Your task to perform on an android device: change notification settings in the gmail app Image 0: 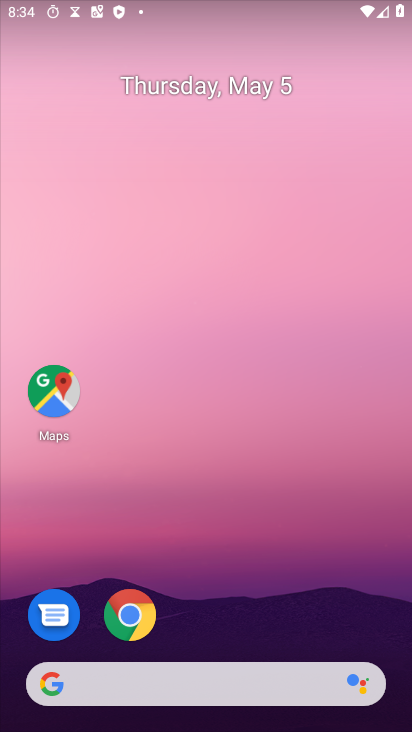
Step 0: drag from (206, 621) to (242, 173)
Your task to perform on an android device: change notification settings in the gmail app Image 1: 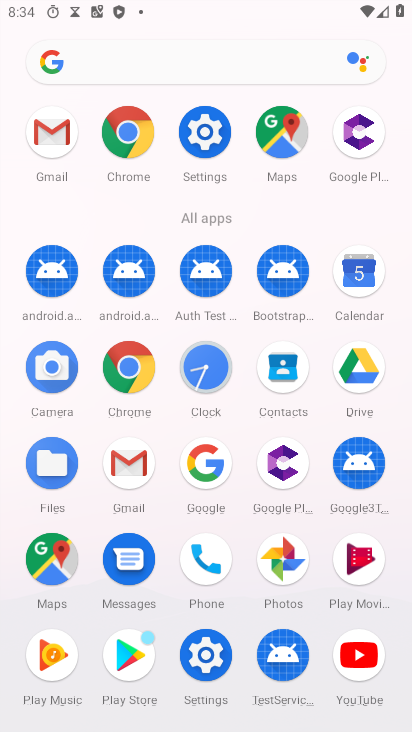
Step 1: click (128, 474)
Your task to perform on an android device: change notification settings in the gmail app Image 2: 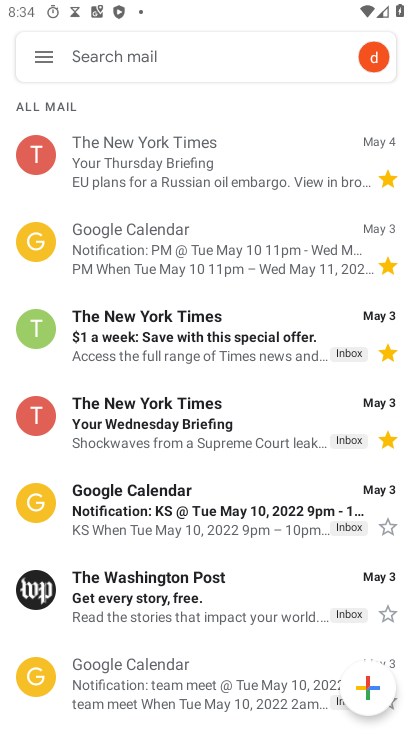
Step 2: click (38, 57)
Your task to perform on an android device: change notification settings in the gmail app Image 3: 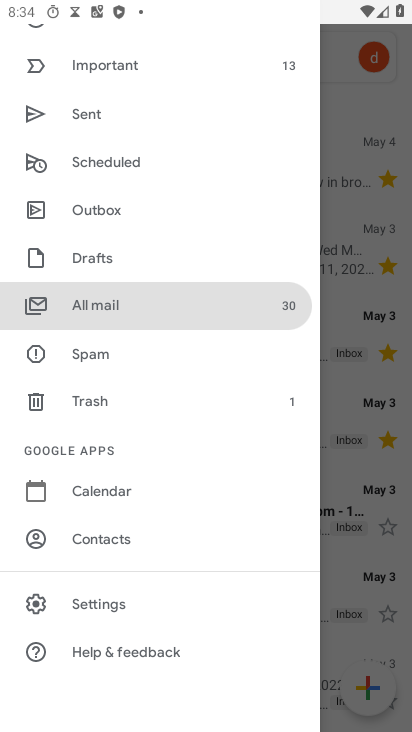
Step 3: click (108, 607)
Your task to perform on an android device: change notification settings in the gmail app Image 4: 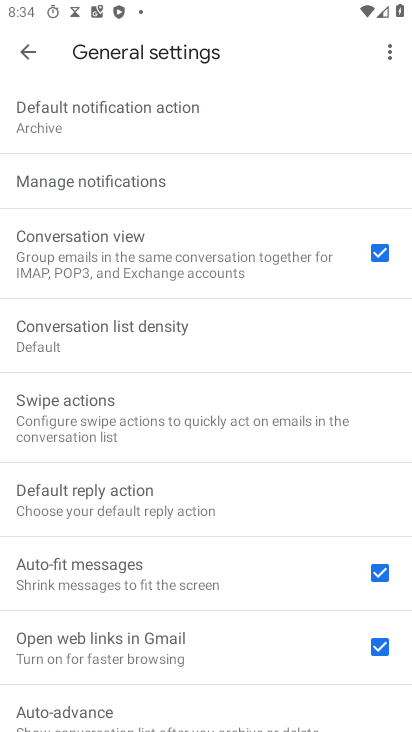
Step 4: click (27, 68)
Your task to perform on an android device: change notification settings in the gmail app Image 5: 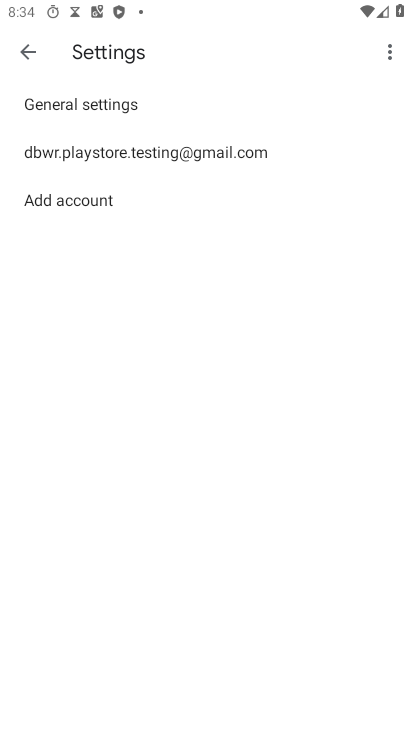
Step 5: click (104, 107)
Your task to perform on an android device: change notification settings in the gmail app Image 6: 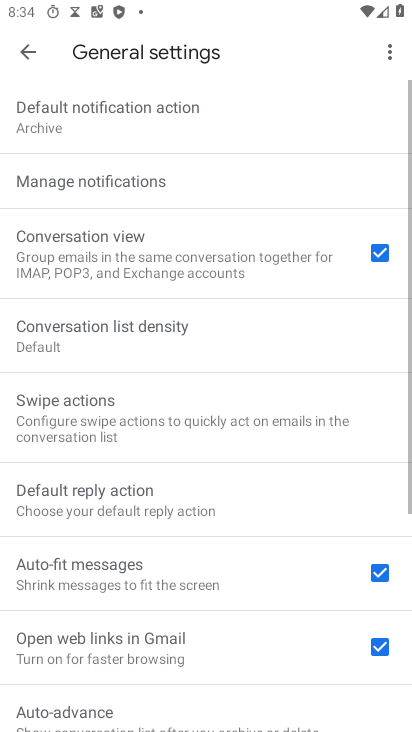
Step 6: click (111, 193)
Your task to perform on an android device: change notification settings in the gmail app Image 7: 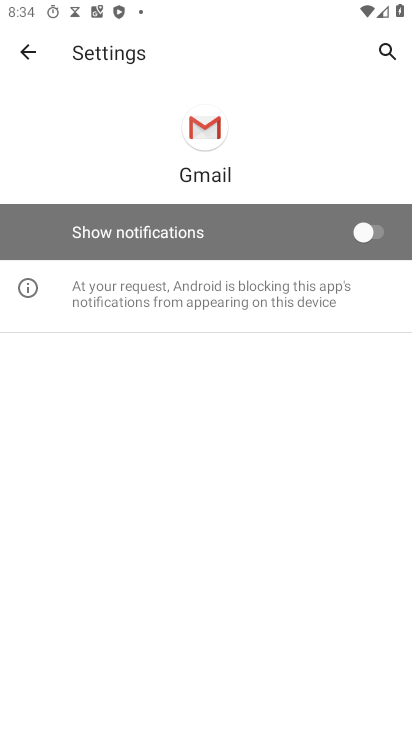
Step 7: click (374, 221)
Your task to perform on an android device: change notification settings in the gmail app Image 8: 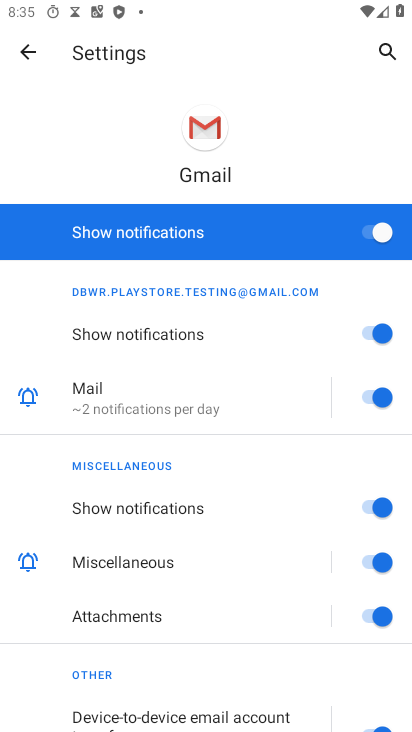
Step 8: task complete